Your task to perform on an android device: Go to Yahoo.com Image 0: 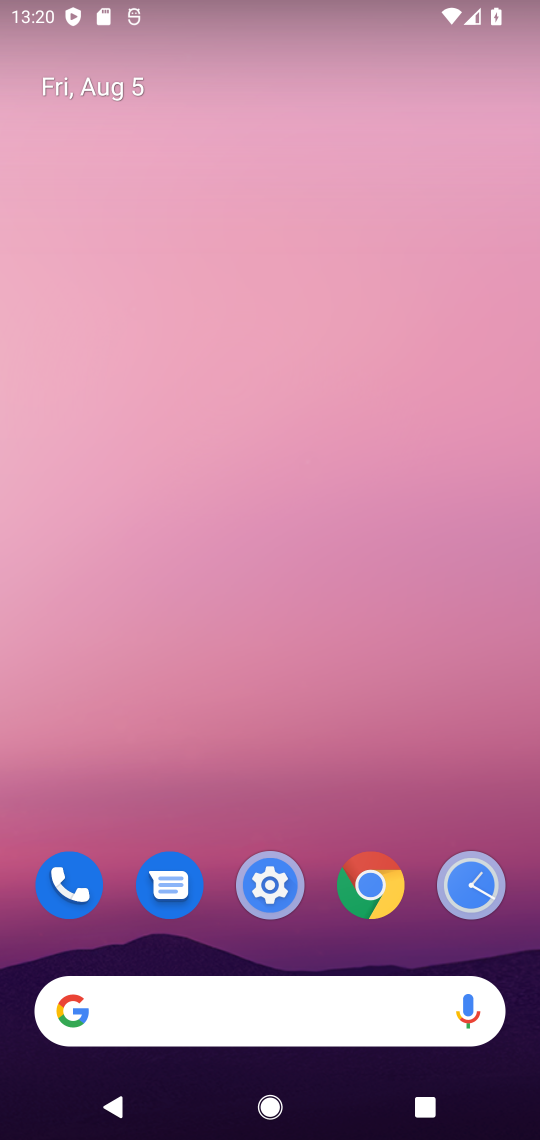
Step 0: click (361, 897)
Your task to perform on an android device: Go to Yahoo.com Image 1: 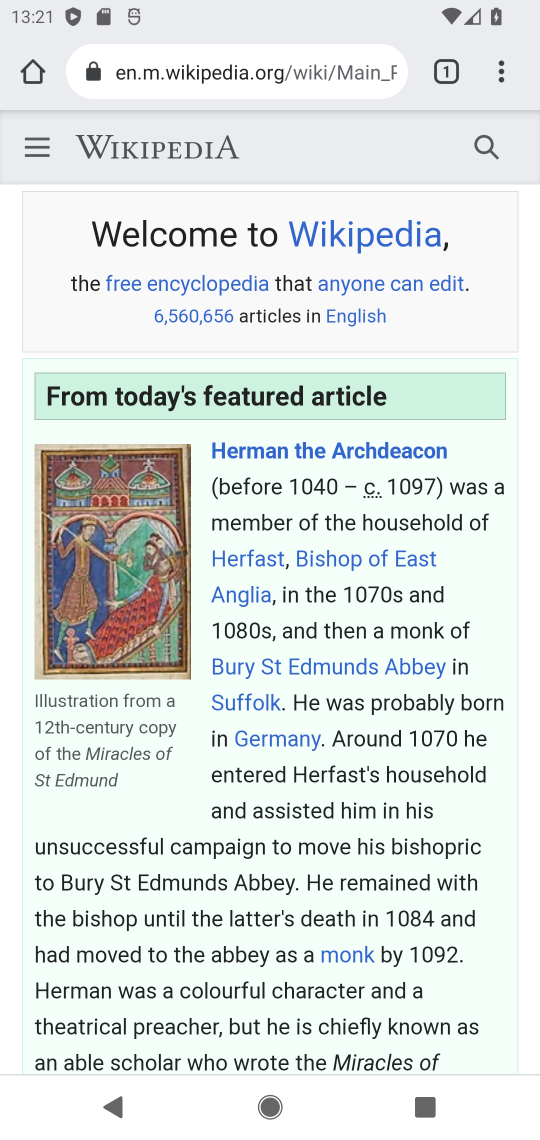
Step 1: press back button
Your task to perform on an android device: Go to Yahoo.com Image 2: 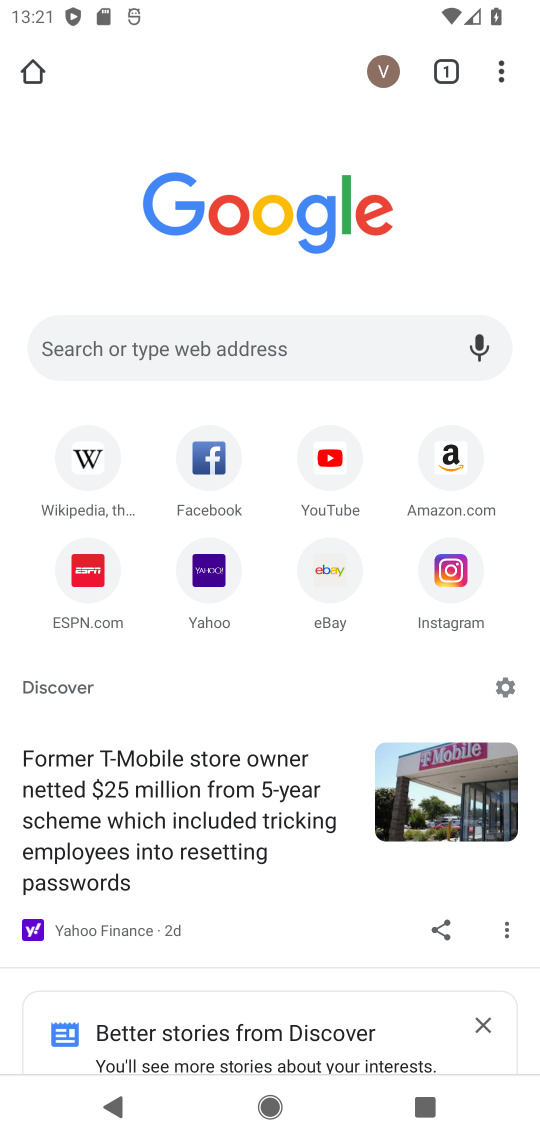
Step 2: click (214, 577)
Your task to perform on an android device: Go to Yahoo.com Image 3: 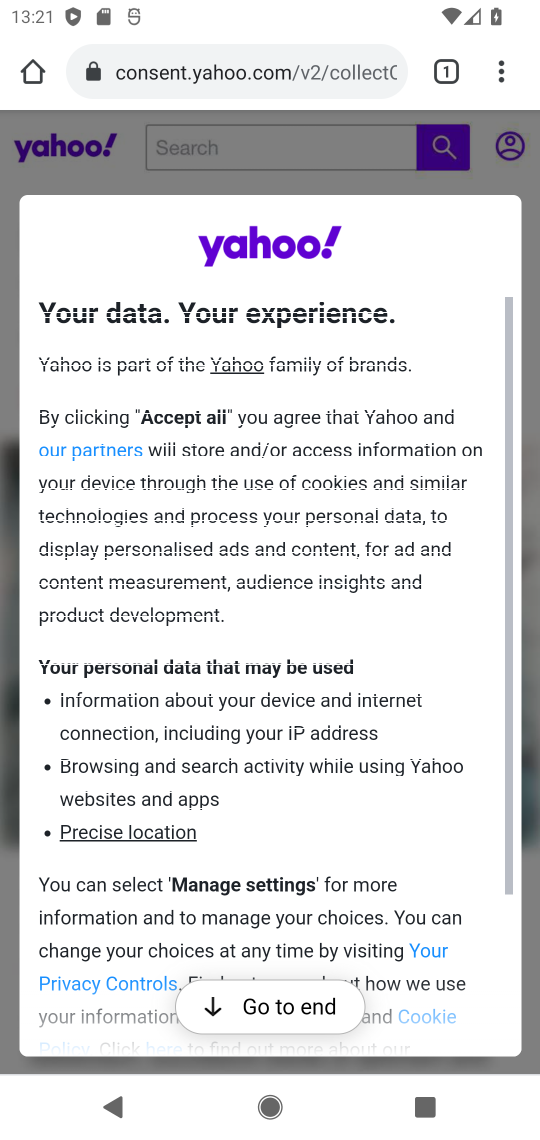
Step 3: task complete